Your task to perform on an android device: empty trash in google photos Image 0: 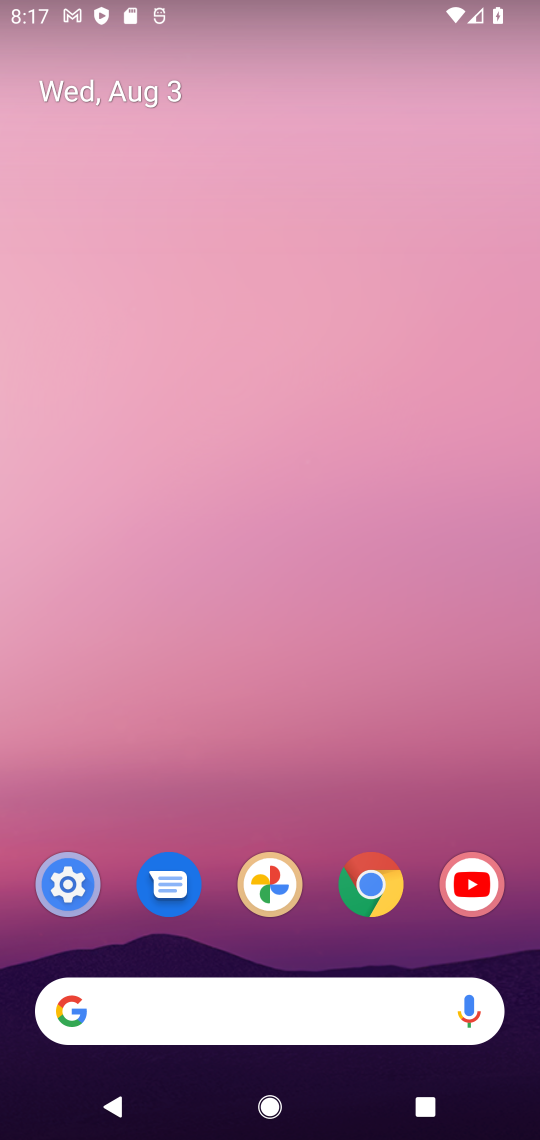
Step 0: click (266, 866)
Your task to perform on an android device: empty trash in google photos Image 1: 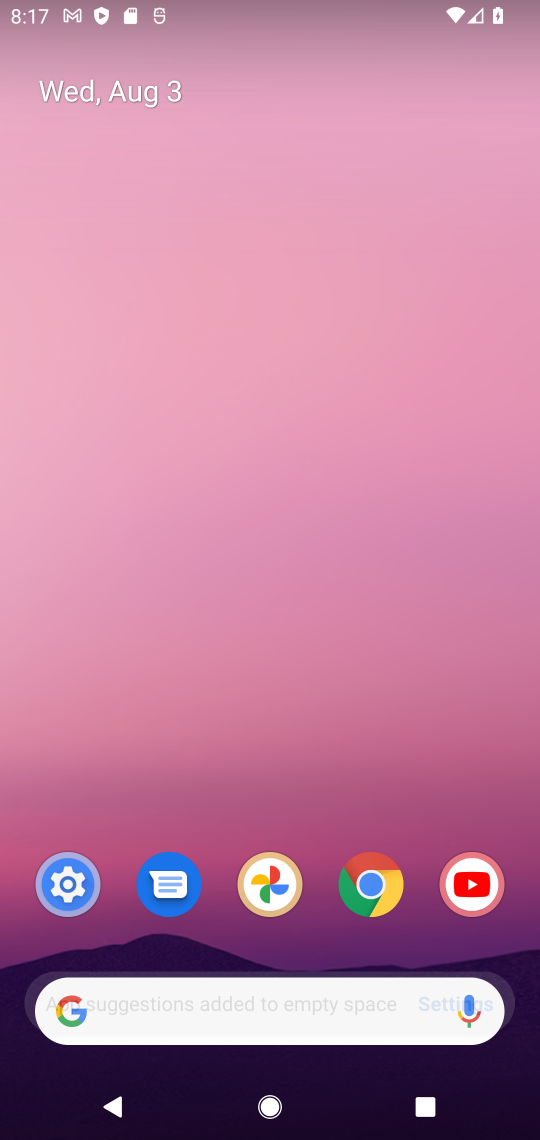
Step 1: click (266, 872)
Your task to perform on an android device: empty trash in google photos Image 2: 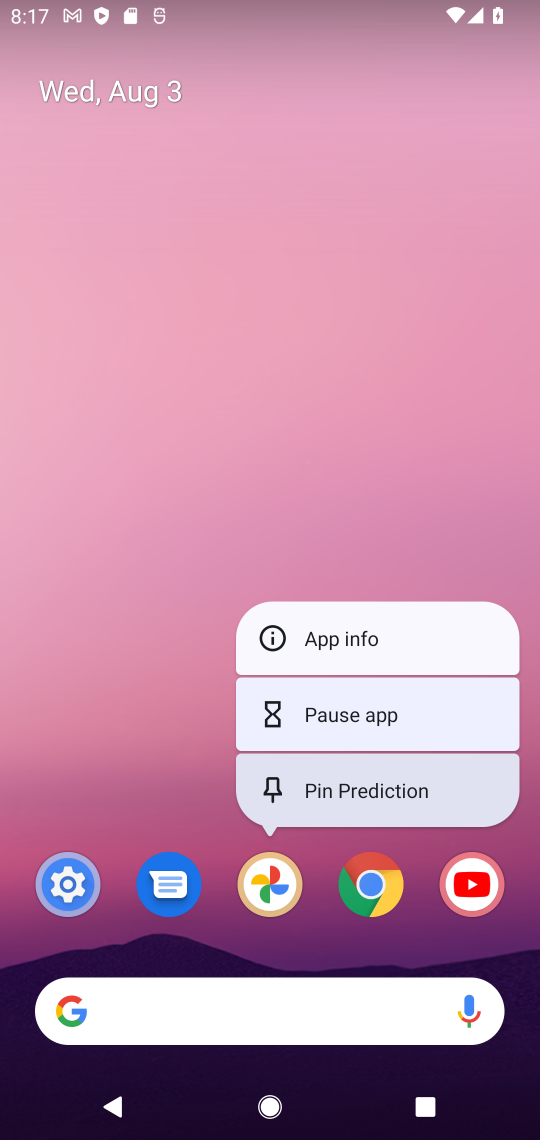
Step 2: click (266, 914)
Your task to perform on an android device: empty trash in google photos Image 3: 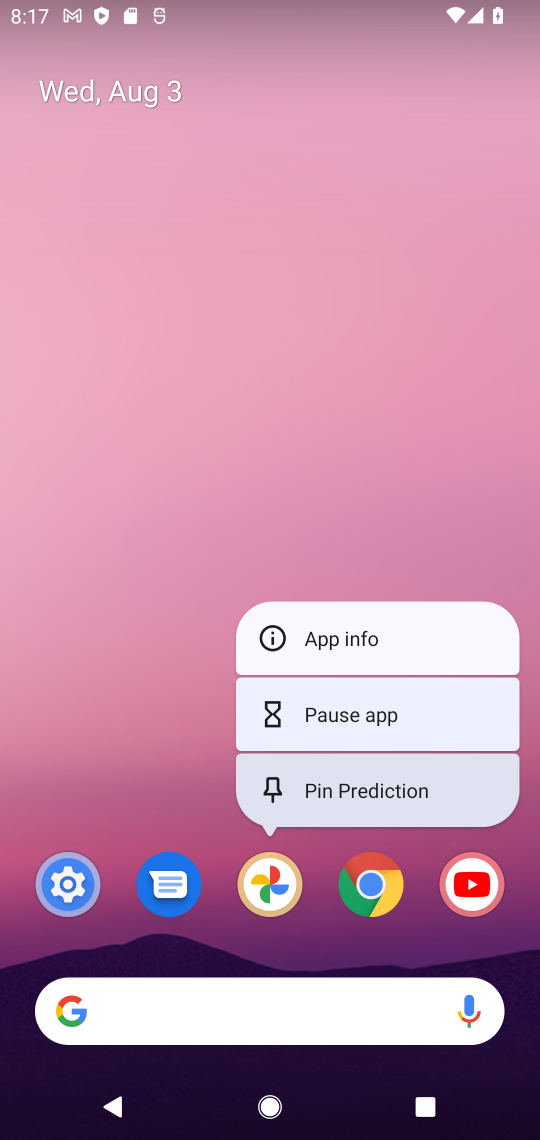
Step 3: click (269, 868)
Your task to perform on an android device: empty trash in google photos Image 4: 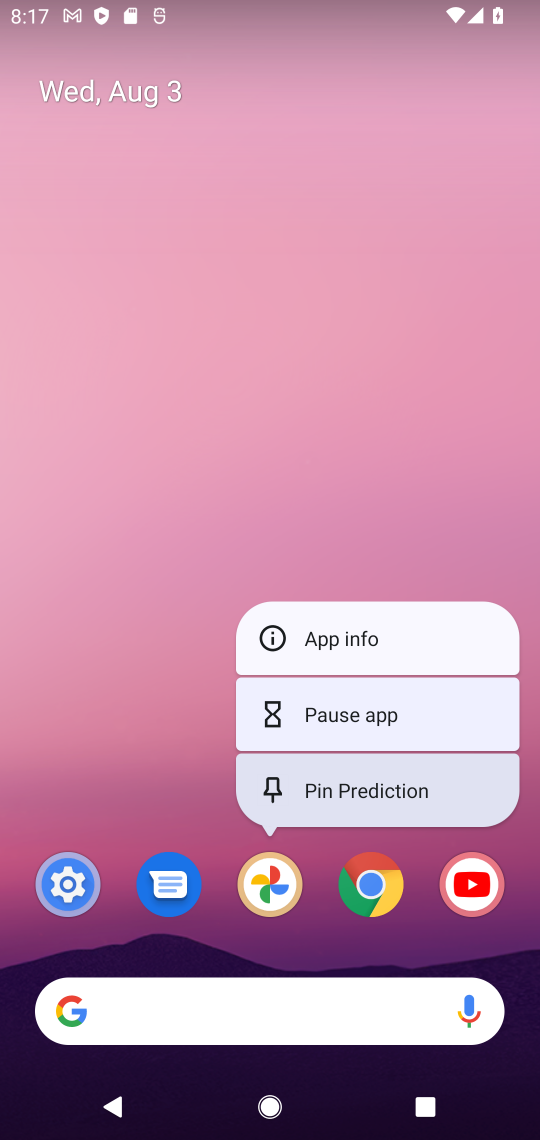
Step 4: click (269, 868)
Your task to perform on an android device: empty trash in google photos Image 5: 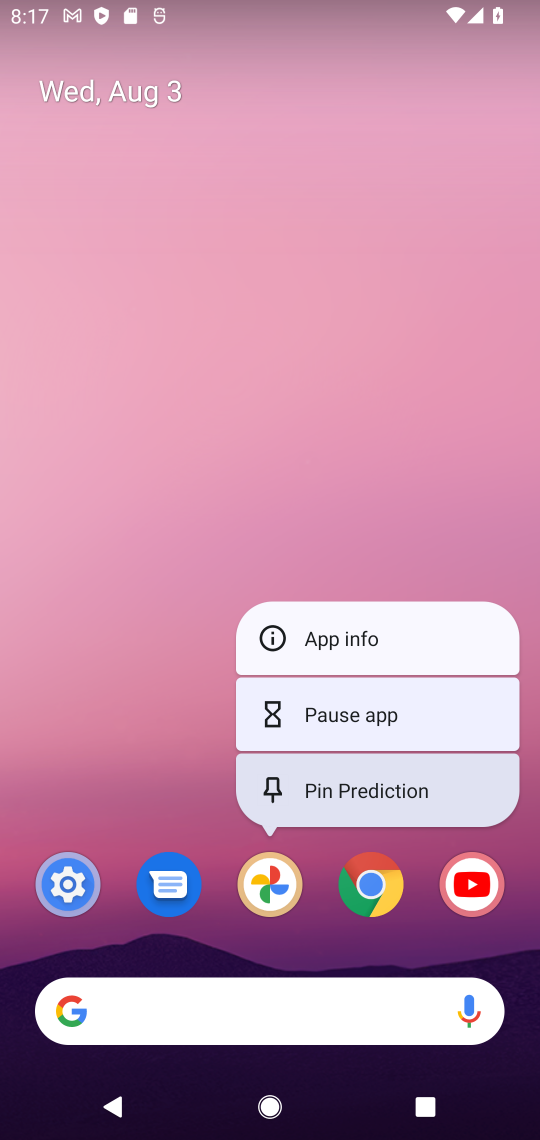
Step 5: click (259, 882)
Your task to perform on an android device: empty trash in google photos Image 6: 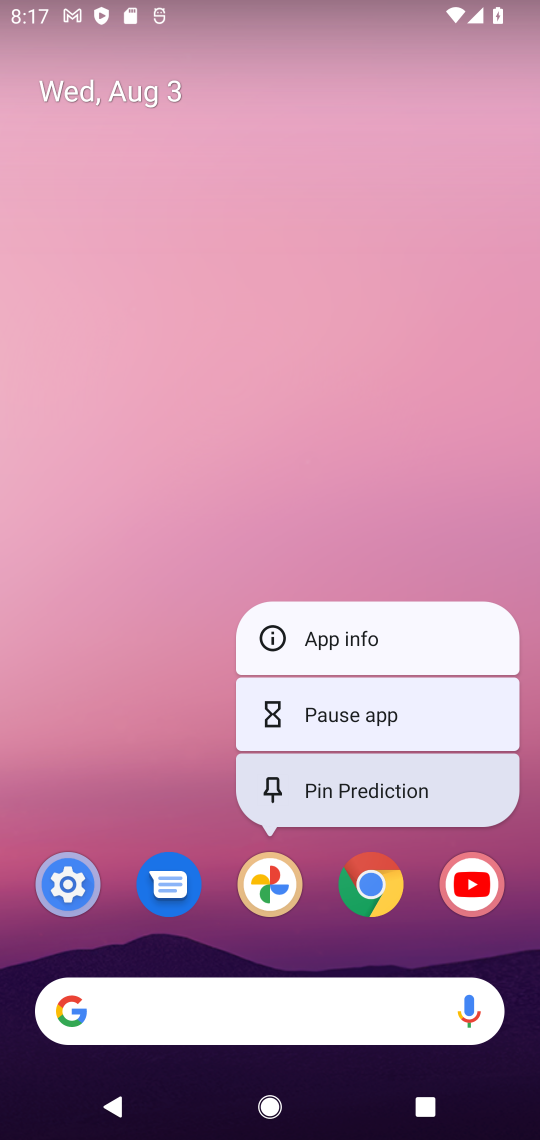
Step 6: click (259, 883)
Your task to perform on an android device: empty trash in google photos Image 7: 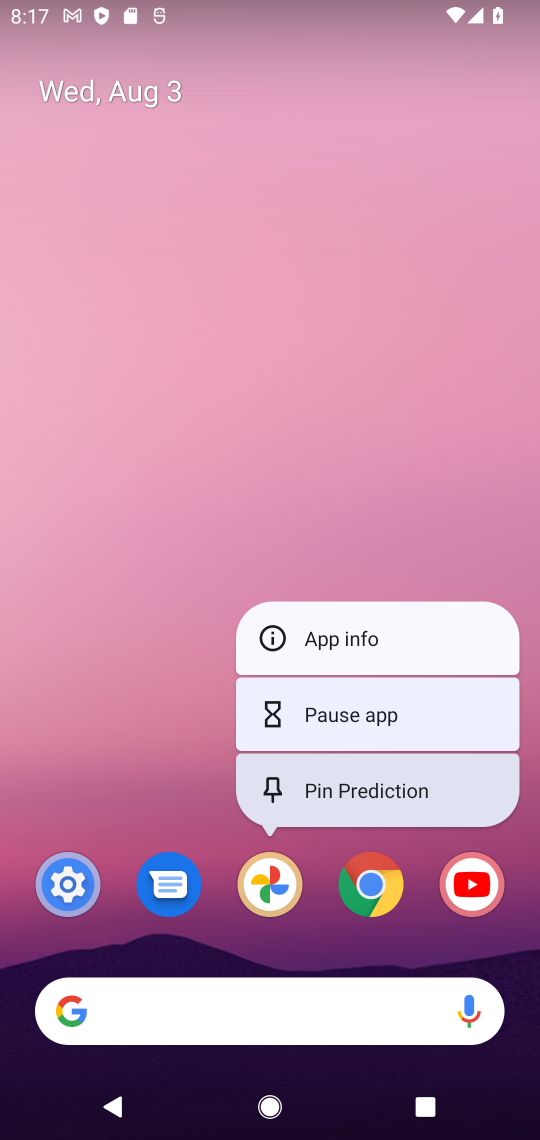
Step 7: task complete